Your task to perform on an android device: Search for sushi restaurants on Maps Image 0: 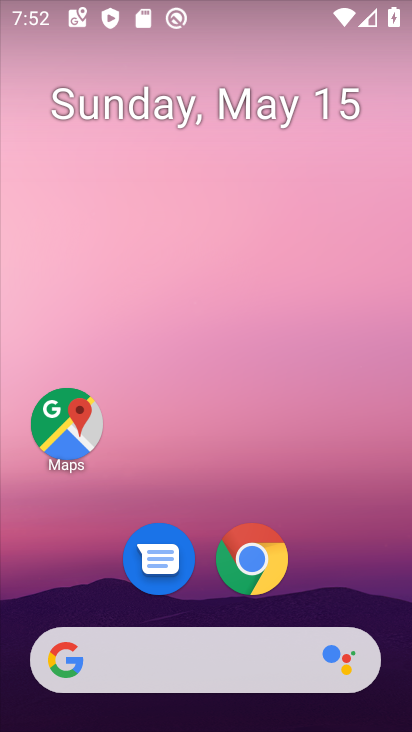
Step 0: click (82, 421)
Your task to perform on an android device: Search for sushi restaurants on Maps Image 1: 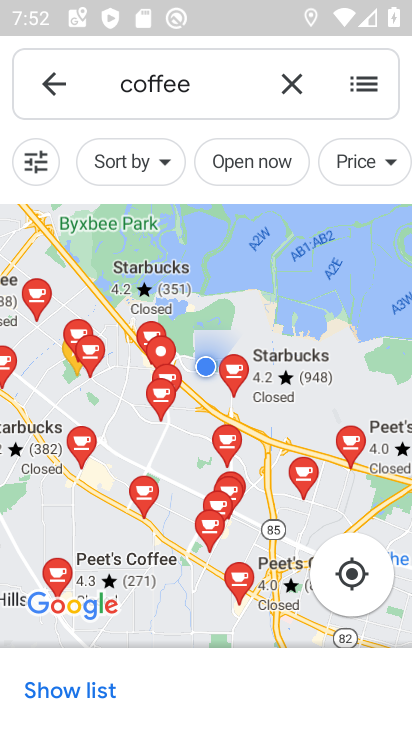
Step 1: click (268, 83)
Your task to perform on an android device: Search for sushi restaurants on Maps Image 2: 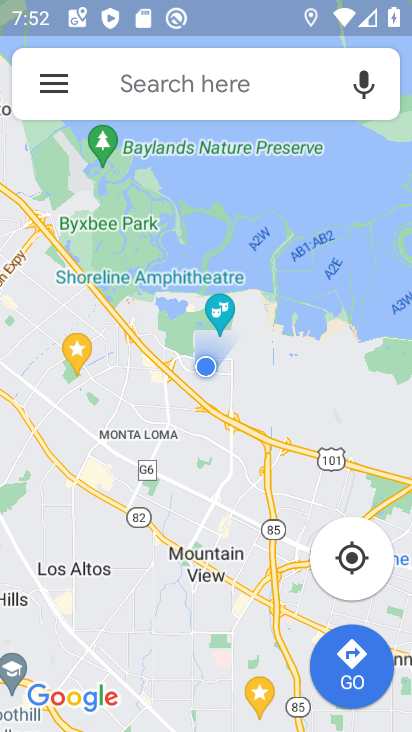
Step 2: click (284, 83)
Your task to perform on an android device: Search for sushi restaurants on Maps Image 3: 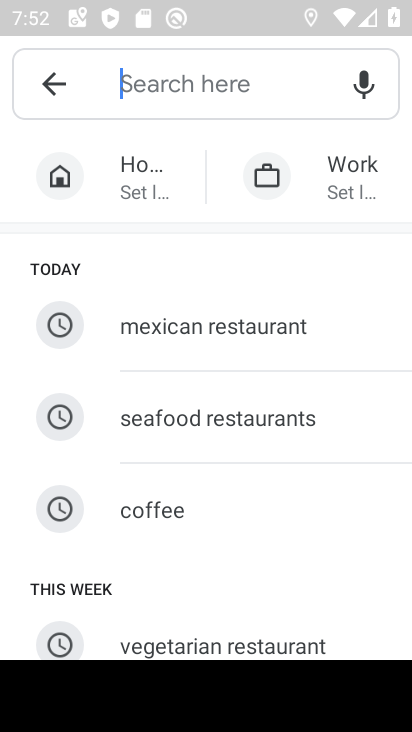
Step 3: drag from (194, 586) to (227, 411)
Your task to perform on an android device: Search for sushi restaurants on Maps Image 4: 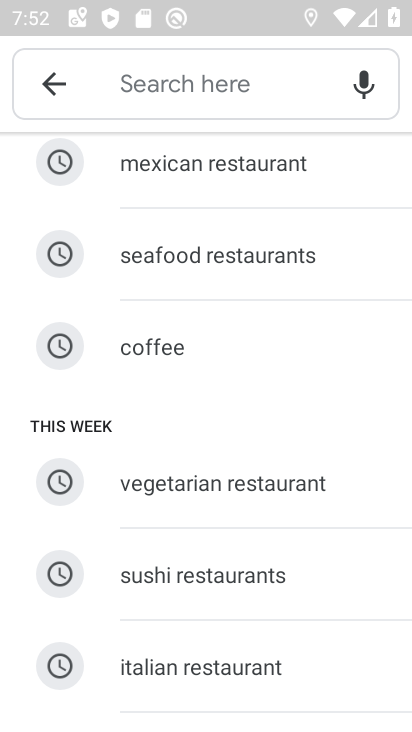
Step 4: click (212, 594)
Your task to perform on an android device: Search for sushi restaurants on Maps Image 5: 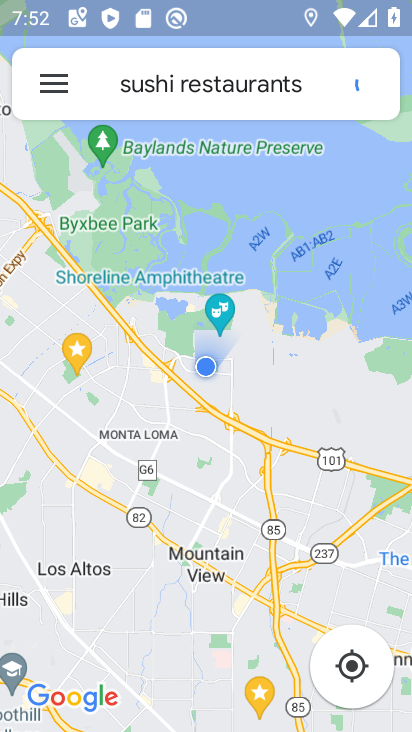
Step 5: task complete